Your task to perform on an android device: Open calendar and show me the second week of next month Image 0: 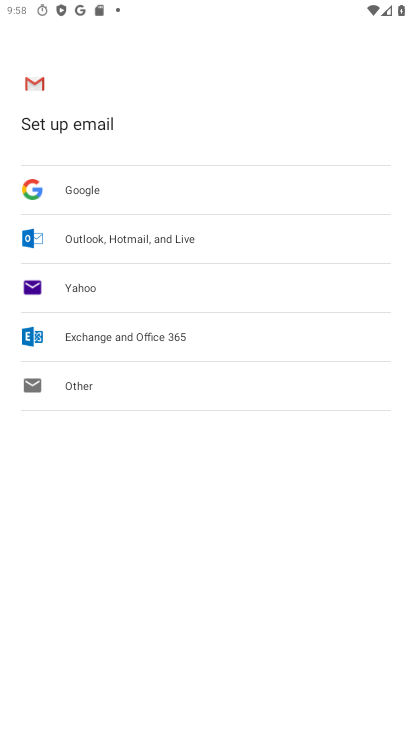
Step 0: press home button
Your task to perform on an android device: Open calendar and show me the second week of next month Image 1: 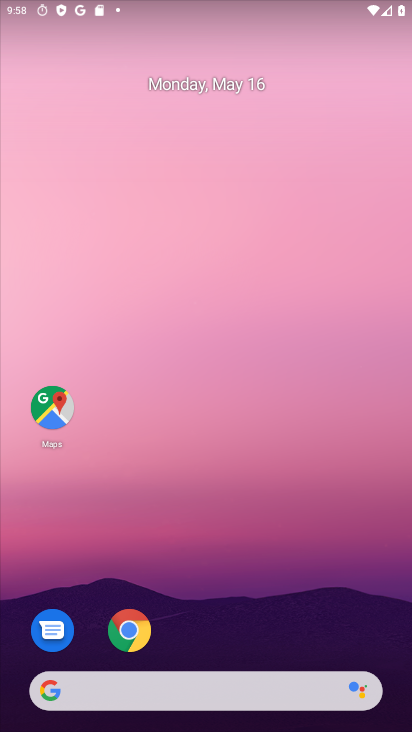
Step 1: drag from (188, 580) to (247, 21)
Your task to perform on an android device: Open calendar and show me the second week of next month Image 2: 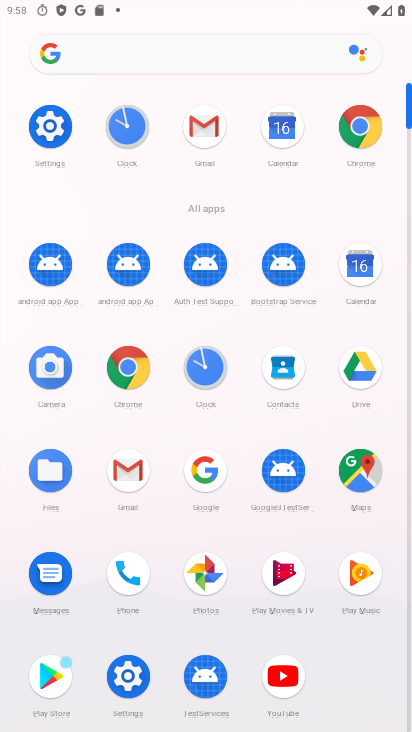
Step 2: click (360, 290)
Your task to perform on an android device: Open calendar and show me the second week of next month Image 3: 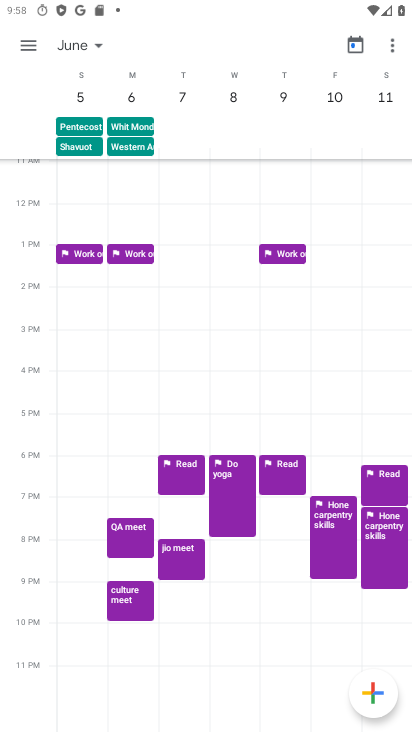
Step 3: task complete